Your task to perform on an android device: Open Maps and search for coffee Image 0: 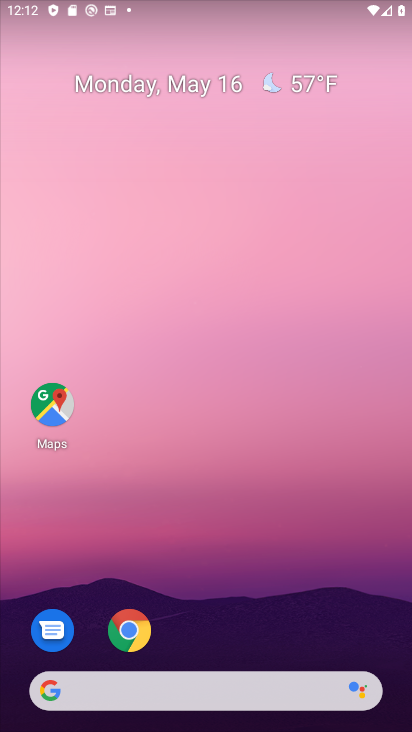
Step 0: click (53, 403)
Your task to perform on an android device: Open Maps and search for coffee Image 1: 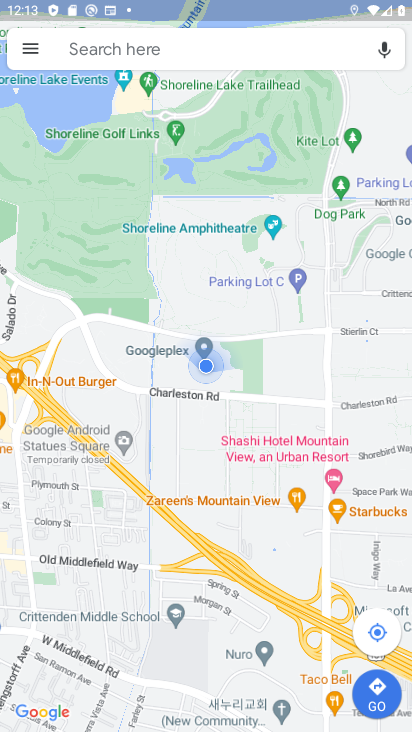
Step 1: click (164, 50)
Your task to perform on an android device: Open Maps and search for coffee Image 2: 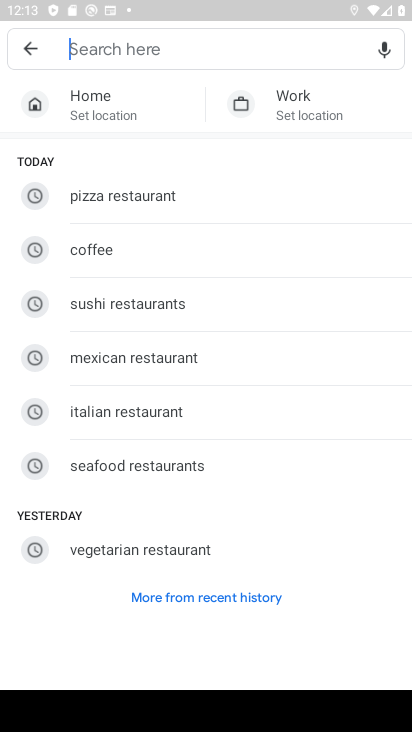
Step 2: click (106, 254)
Your task to perform on an android device: Open Maps and search for coffee Image 3: 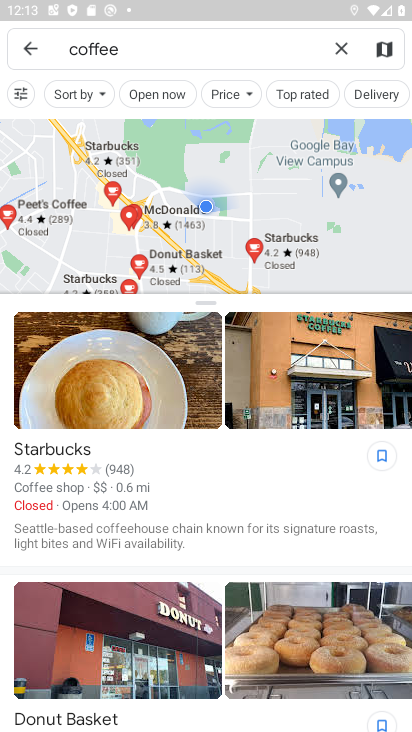
Step 3: task complete